Your task to perform on an android device: open the mobile data screen to see how much data has been used Image 0: 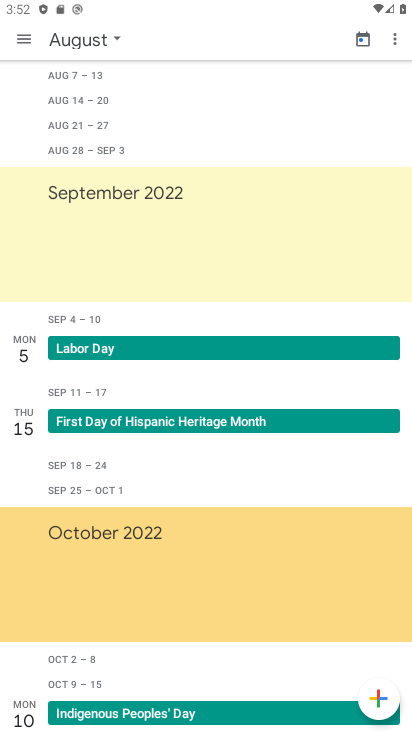
Step 0: press home button
Your task to perform on an android device: open the mobile data screen to see how much data has been used Image 1: 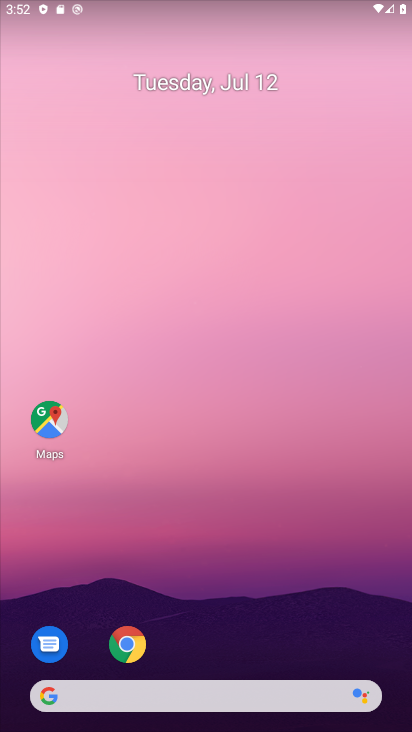
Step 1: drag from (163, 685) to (160, 17)
Your task to perform on an android device: open the mobile data screen to see how much data has been used Image 2: 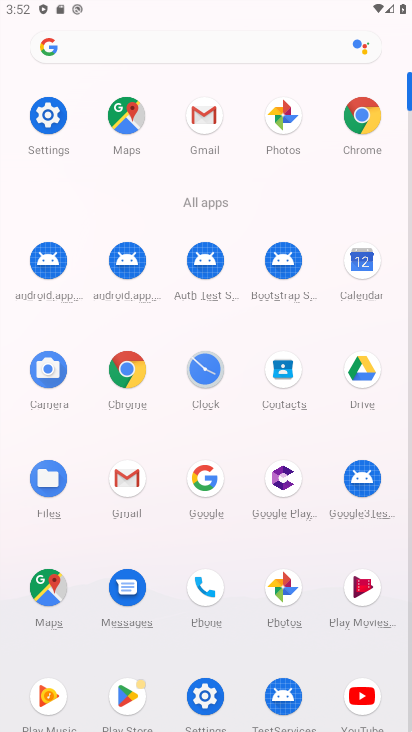
Step 2: click (57, 109)
Your task to perform on an android device: open the mobile data screen to see how much data has been used Image 3: 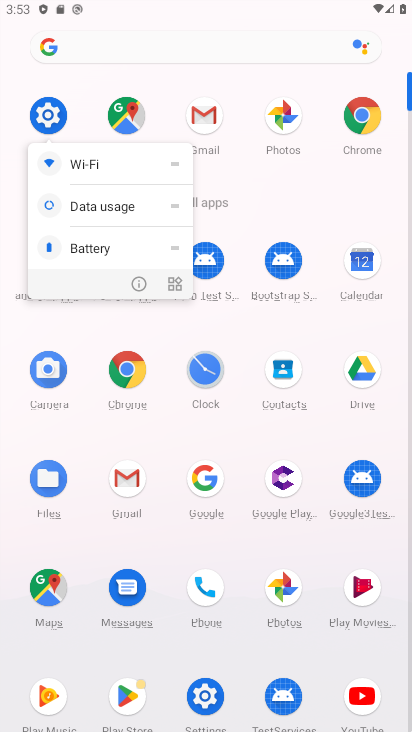
Step 3: click (43, 119)
Your task to perform on an android device: open the mobile data screen to see how much data has been used Image 4: 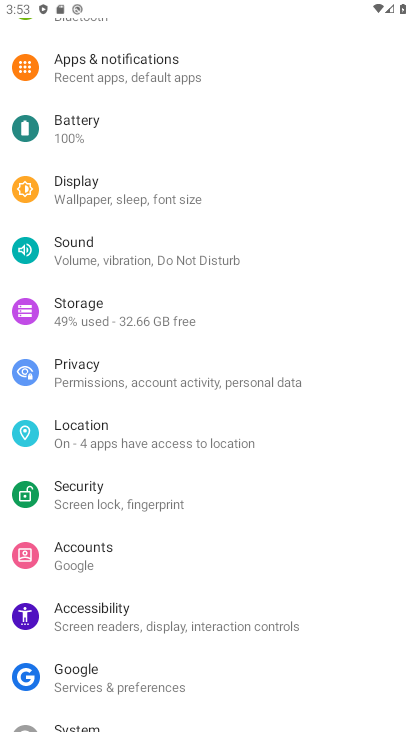
Step 4: drag from (115, 89) to (146, 520)
Your task to perform on an android device: open the mobile data screen to see how much data has been used Image 5: 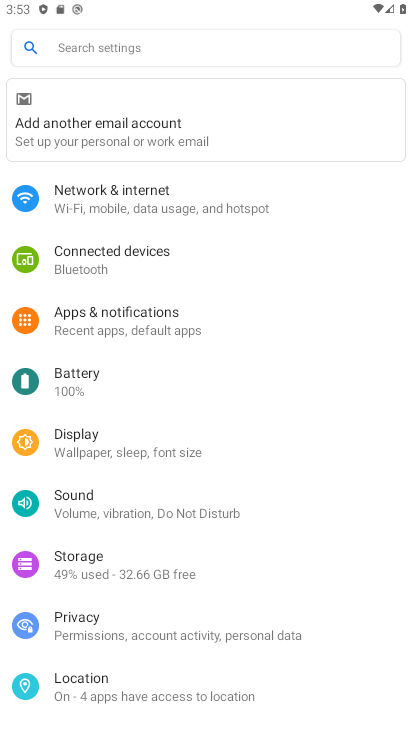
Step 5: click (108, 198)
Your task to perform on an android device: open the mobile data screen to see how much data has been used Image 6: 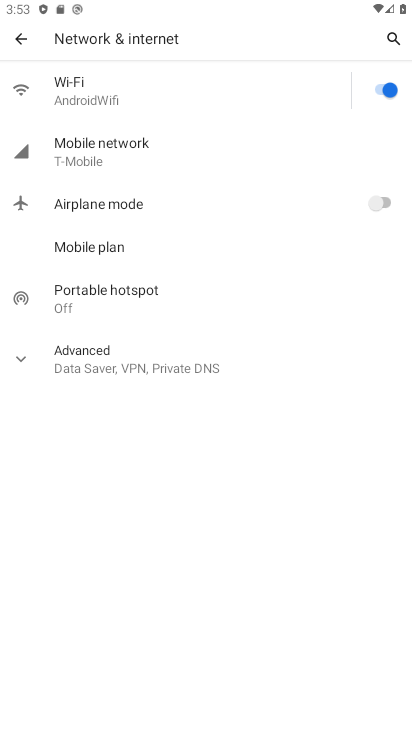
Step 6: click (101, 159)
Your task to perform on an android device: open the mobile data screen to see how much data has been used Image 7: 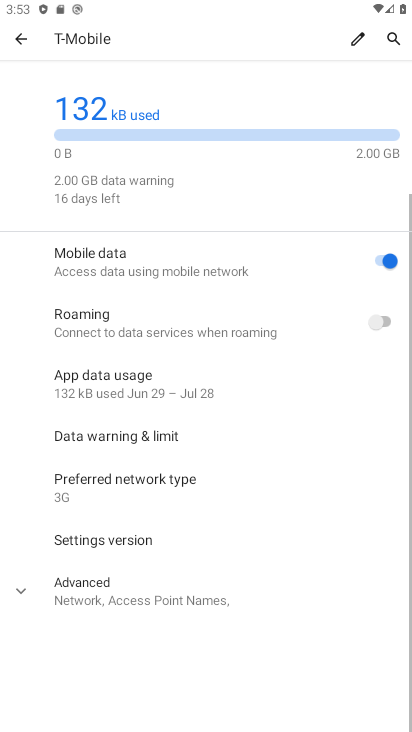
Step 7: task complete